Your task to perform on an android device: toggle airplane mode Image 0: 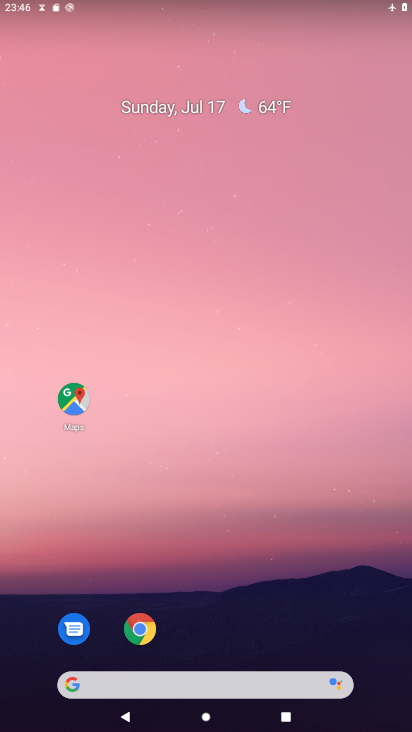
Step 0: drag from (262, 642) to (272, 222)
Your task to perform on an android device: toggle airplane mode Image 1: 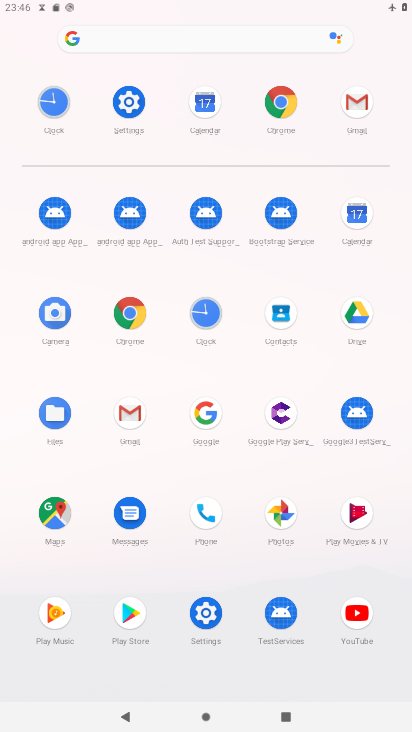
Step 1: click (127, 94)
Your task to perform on an android device: toggle airplane mode Image 2: 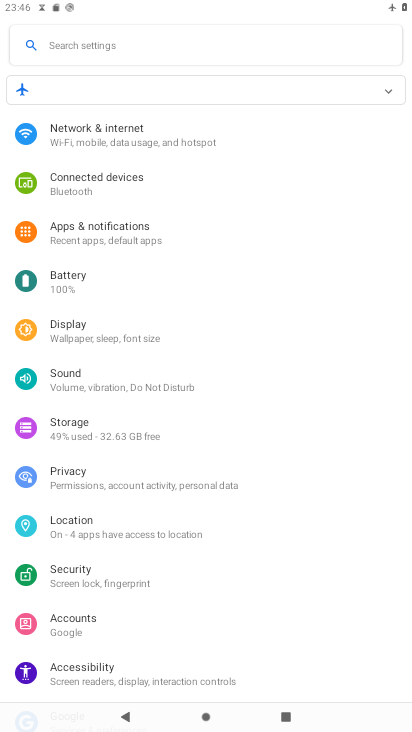
Step 2: click (180, 140)
Your task to perform on an android device: toggle airplane mode Image 3: 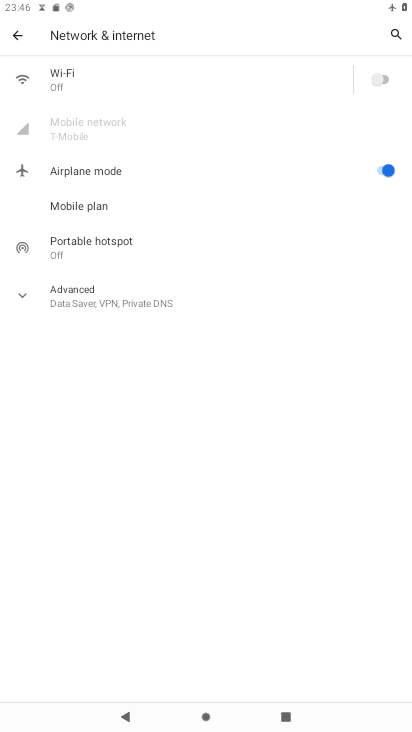
Step 3: click (379, 171)
Your task to perform on an android device: toggle airplane mode Image 4: 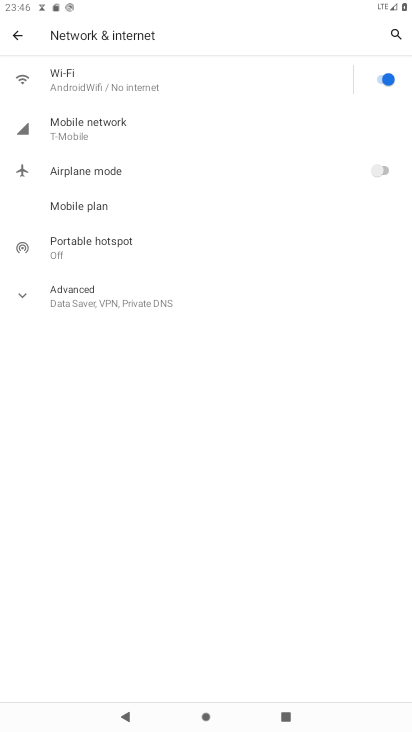
Step 4: task complete